Your task to perform on an android device: Is it going to rain today? Image 0: 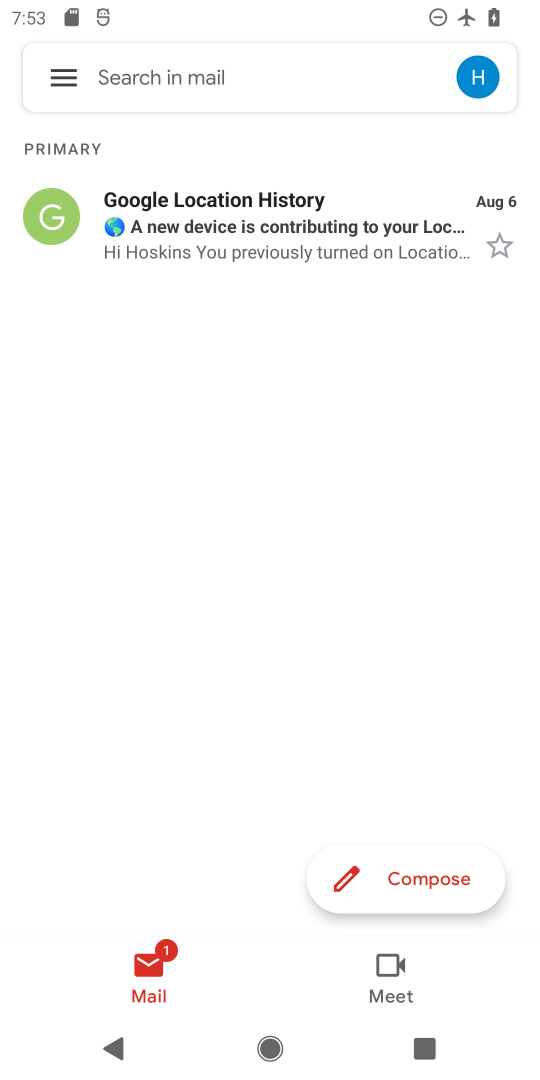
Step 0: press home button
Your task to perform on an android device: Is it going to rain today? Image 1: 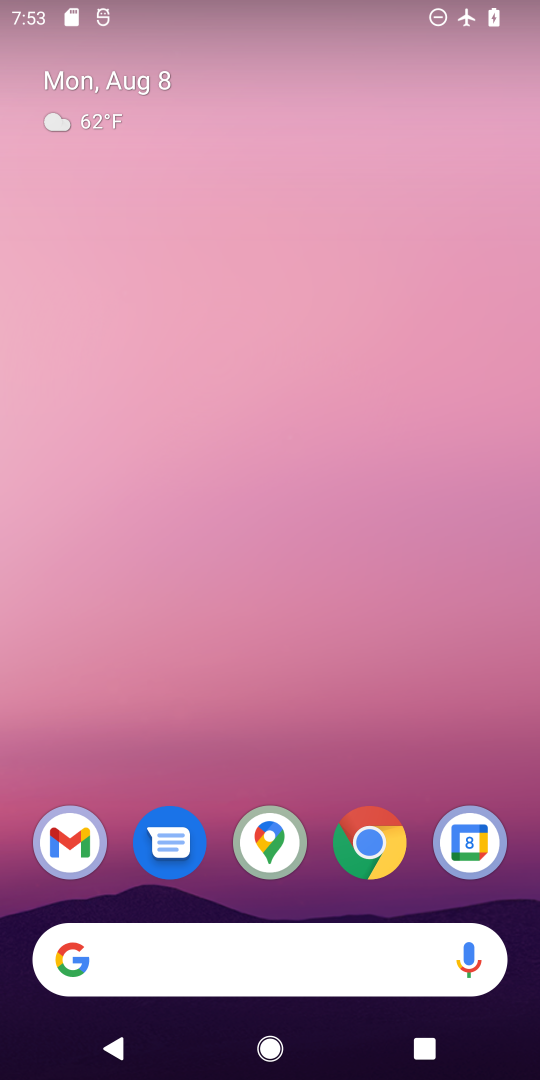
Step 1: click (267, 940)
Your task to perform on an android device: Is it going to rain today? Image 2: 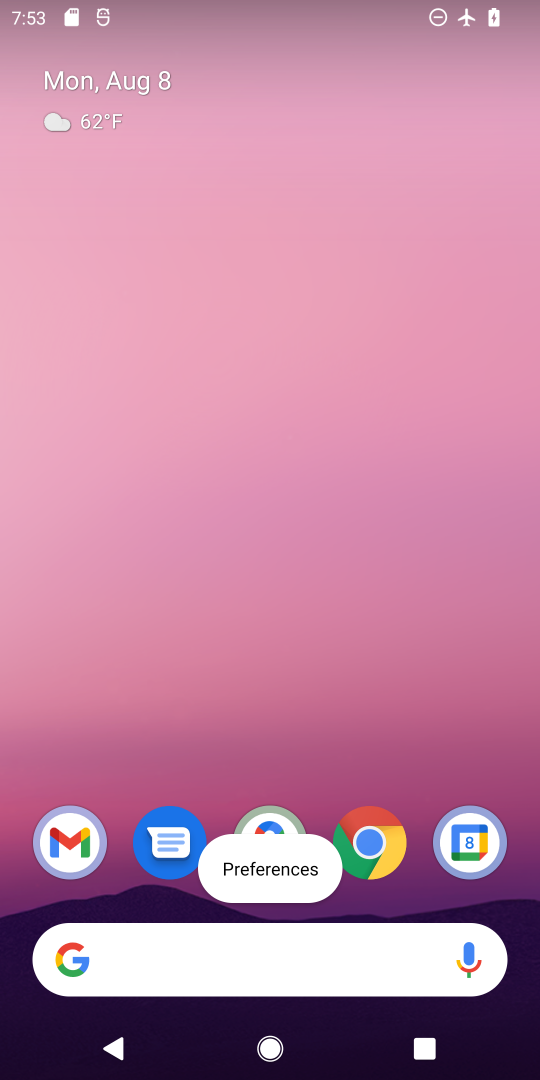
Step 2: click (275, 967)
Your task to perform on an android device: Is it going to rain today? Image 3: 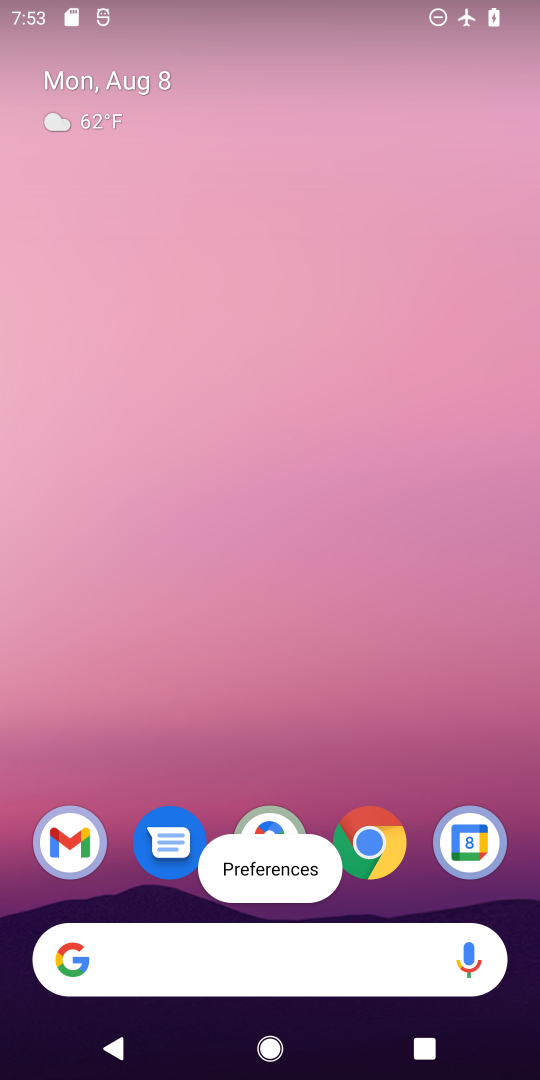
Step 3: click (287, 957)
Your task to perform on an android device: Is it going to rain today? Image 4: 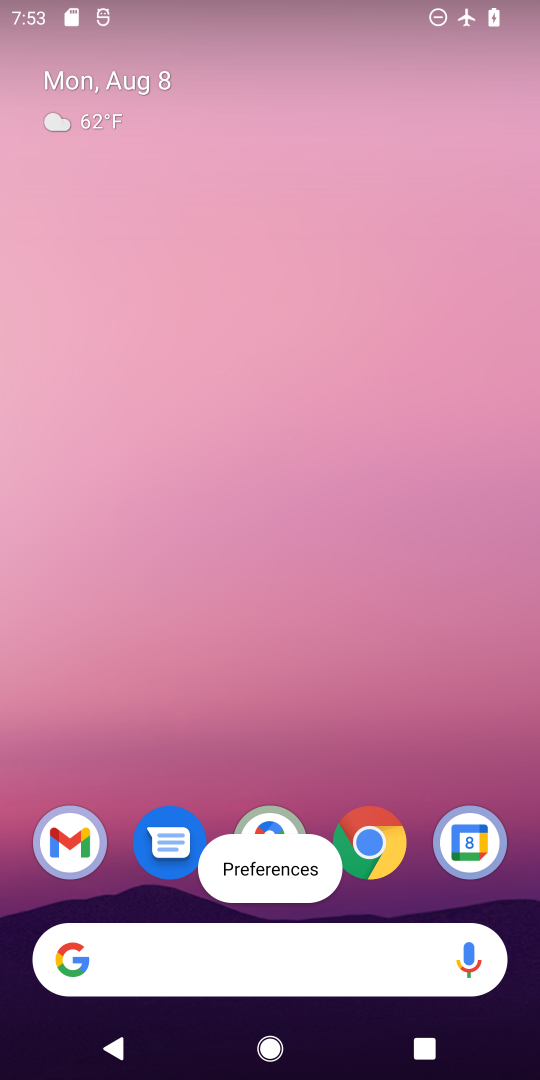
Step 4: click (282, 955)
Your task to perform on an android device: Is it going to rain today? Image 5: 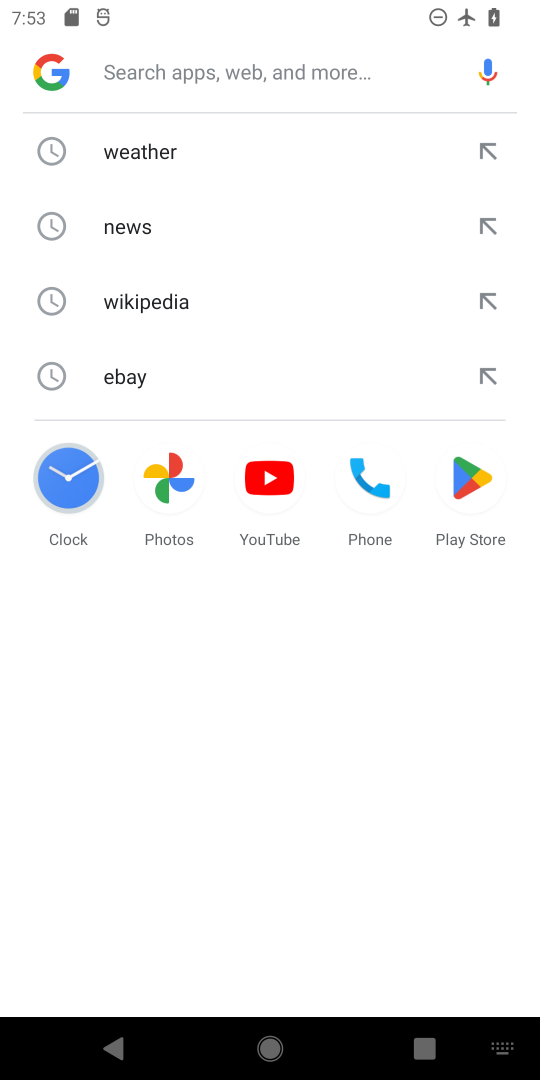
Step 5: click (157, 154)
Your task to perform on an android device: Is it going to rain today? Image 6: 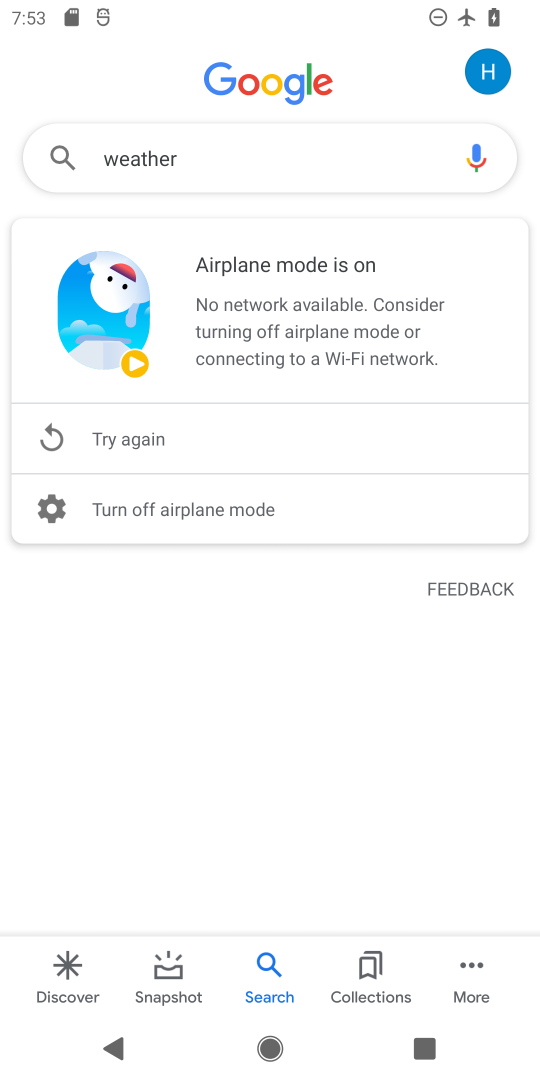
Step 6: task complete